Your task to perform on an android device: Search for seafood restaurants on Google Maps Image 0: 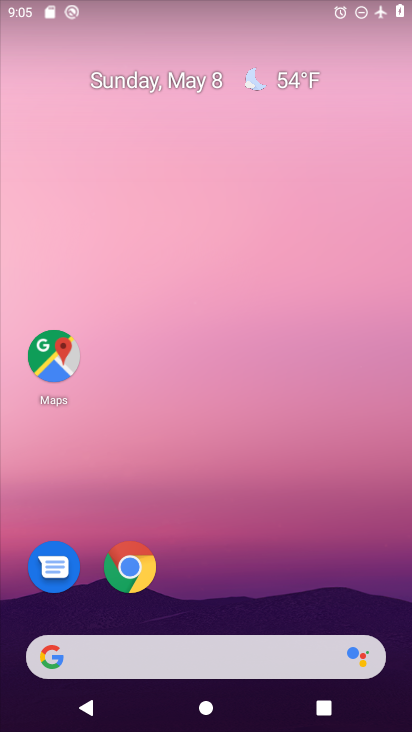
Step 0: click (133, 572)
Your task to perform on an android device: Search for seafood restaurants on Google Maps Image 1: 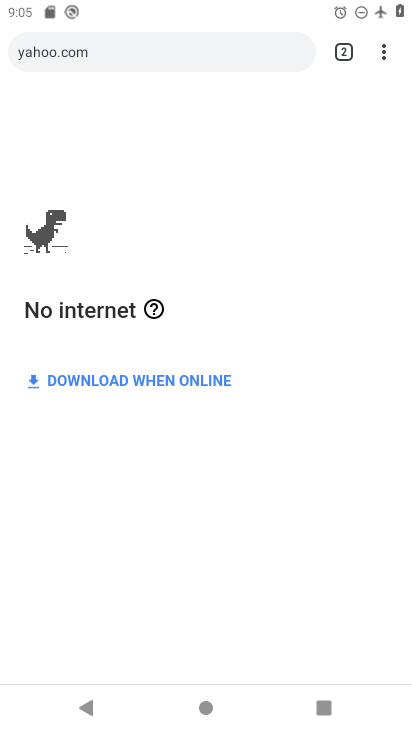
Step 1: task complete